Your task to perform on an android device: Open sound settings Image 0: 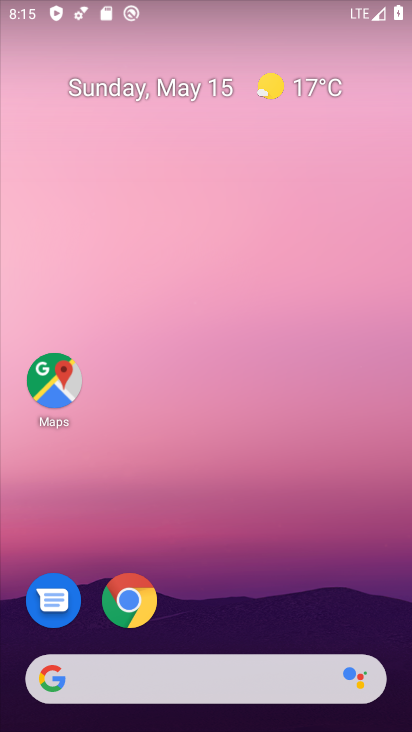
Step 0: drag from (230, 598) to (199, 238)
Your task to perform on an android device: Open sound settings Image 1: 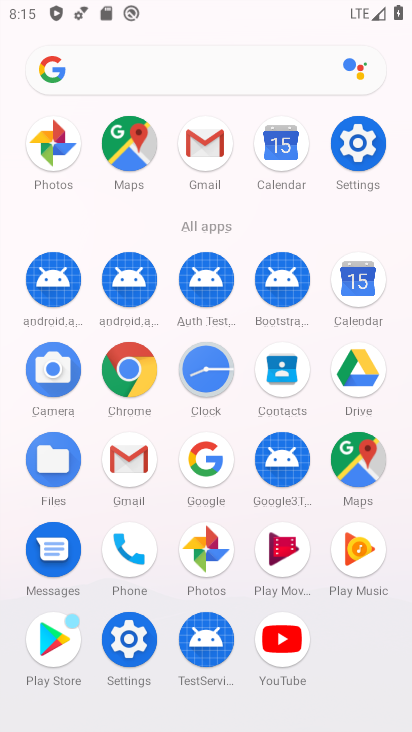
Step 1: click (358, 145)
Your task to perform on an android device: Open sound settings Image 2: 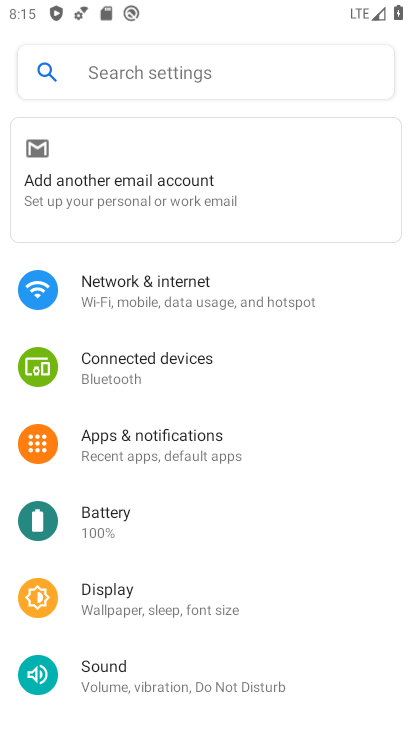
Step 2: drag from (177, 568) to (215, 447)
Your task to perform on an android device: Open sound settings Image 3: 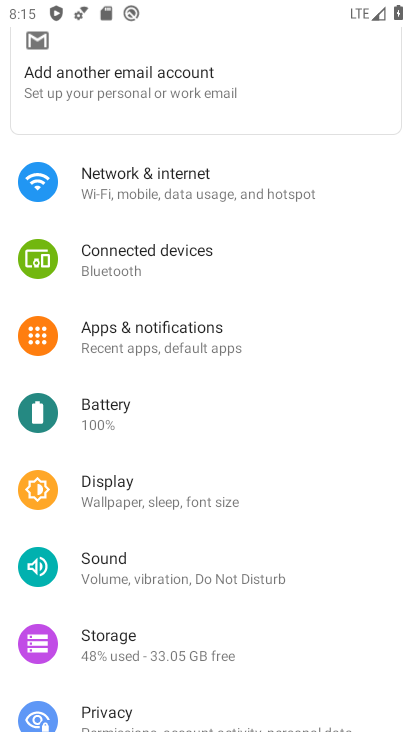
Step 3: click (154, 577)
Your task to perform on an android device: Open sound settings Image 4: 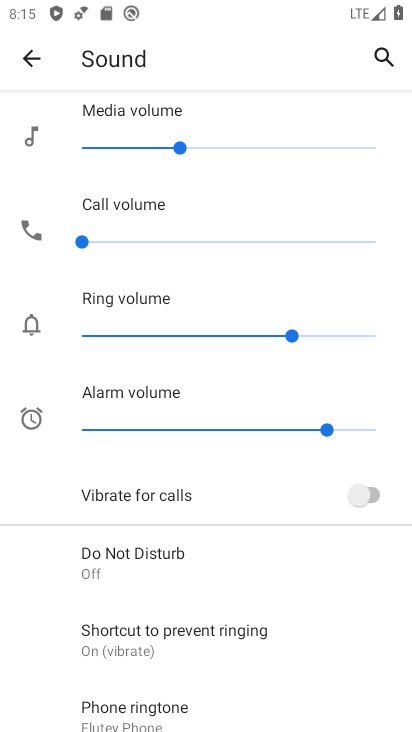
Step 4: task complete